Your task to perform on an android device: What's the weather going to be this weekend? Image 0: 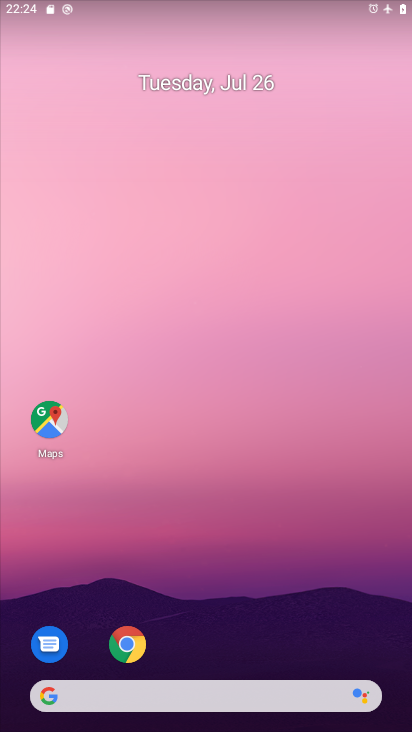
Step 0: drag from (231, 609) to (236, 160)
Your task to perform on an android device: What's the weather going to be this weekend? Image 1: 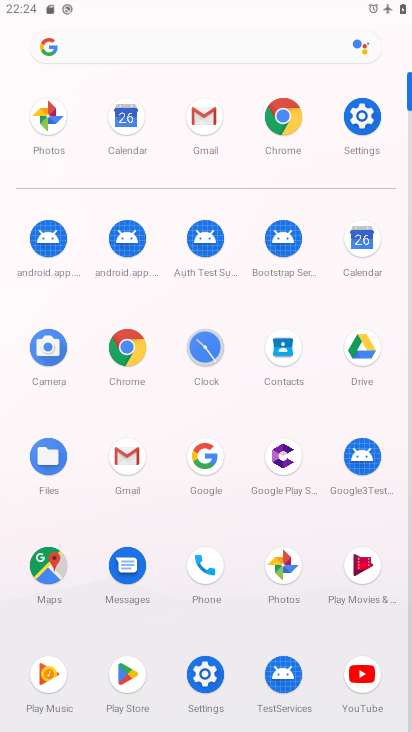
Step 1: click (282, 116)
Your task to perform on an android device: What's the weather going to be this weekend? Image 2: 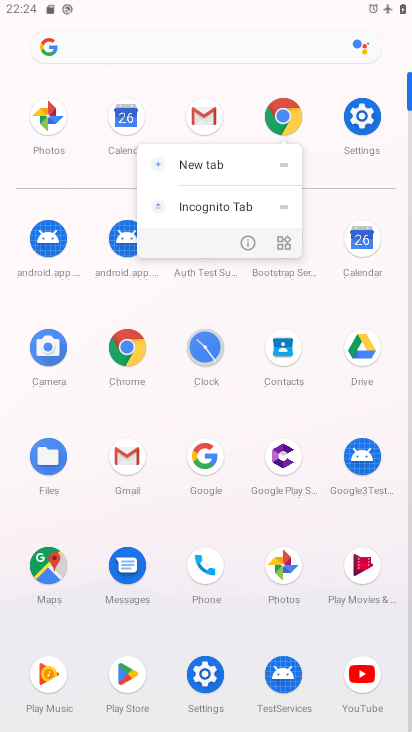
Step 2: click (282, 116)
Your task to perform on an android device: What's the weather going to be this weekend? Image 3: 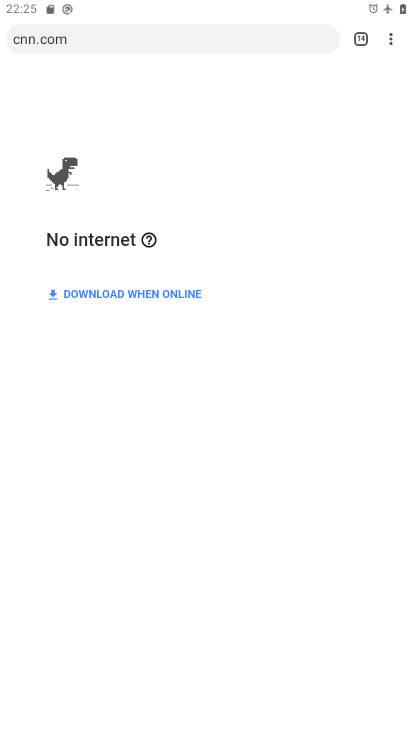
Step 3: click (394, 39)
Your task to perform on an android device: What's the weather going to be this weekend? Image 4: 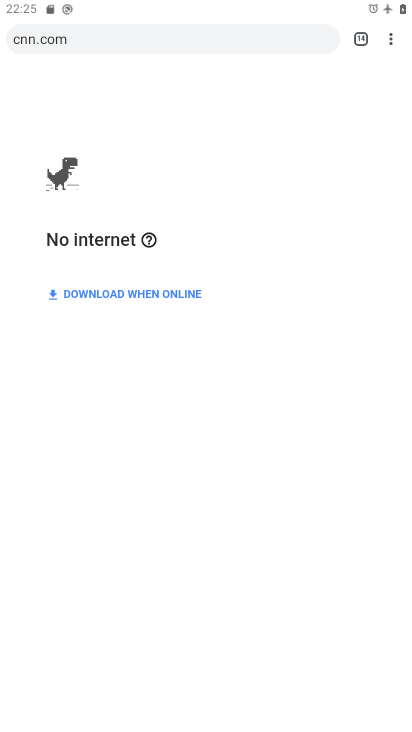
Step 4: click (387, 41)
Your task to perform on an android device: What's the weather going to be this weekend? Image 5: 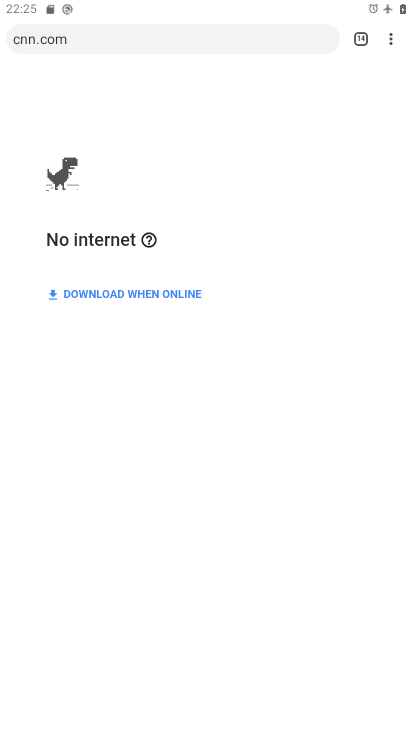
Step 5: click (393, 34)
Your task to perform on an android device: What's the weather going to be this weekend? Image 6: 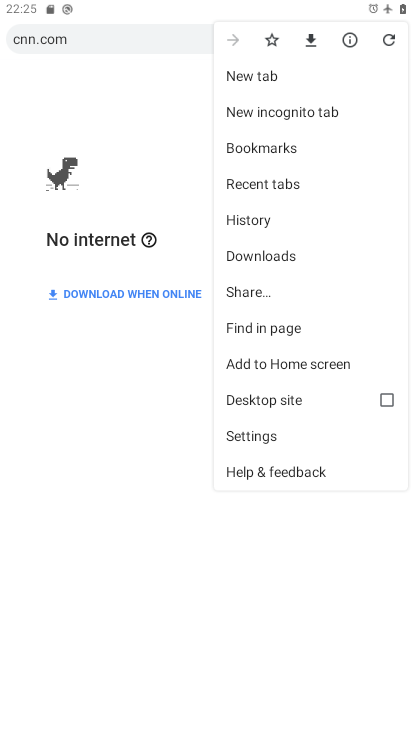
Step 6: click (271, 67)
Your task to perform on an android device: What's the weather going to be this weekend? Image 7: 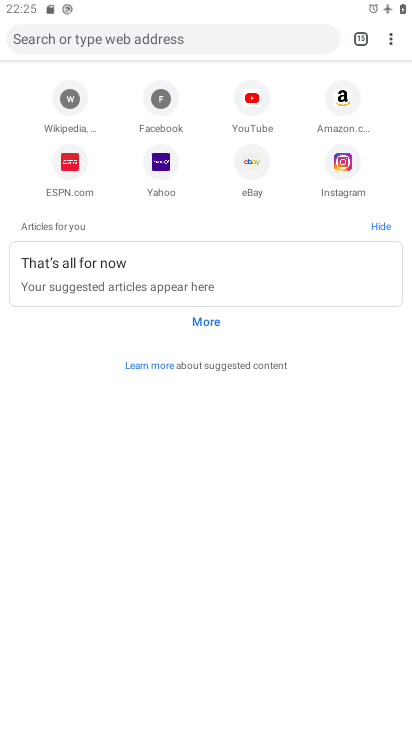
Step 7: click (223, 33)
Your task to perform on an android device: What's the weather going to be this weekend? Image 8: 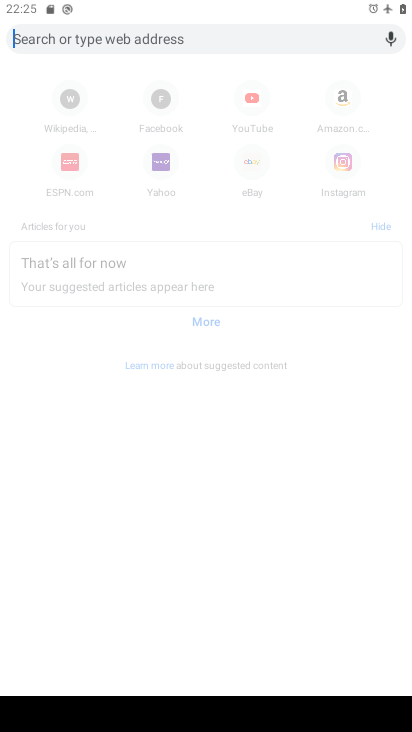
Step 8: type "What's the weather going to be this weekend? "
Your task to perform on an android device: What's the weather going to be this weekend? Image 9: 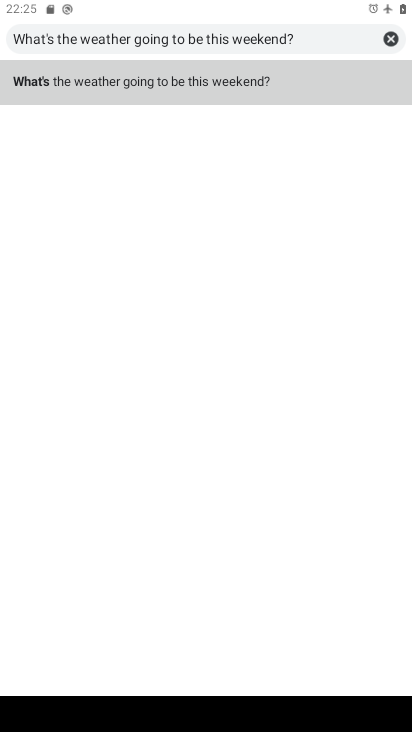
Step 9: click (261, 70)
Your task to perform on an android device: What's the weather going to be this weekend? Image 10: 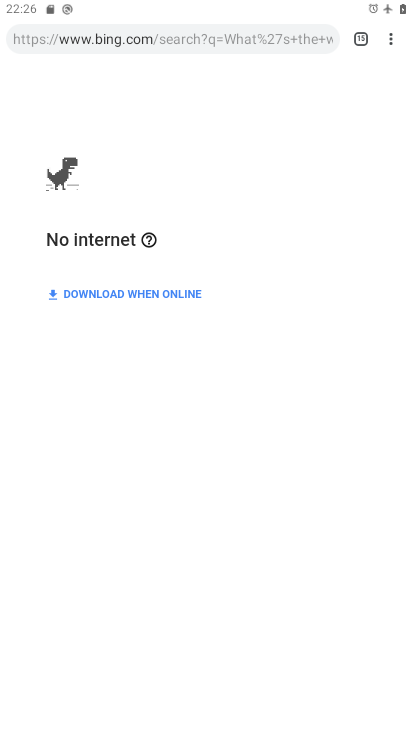
Step 10: task complete